Your task to perform on an android device: open chrome and create a bookmark for the current page Image 0: 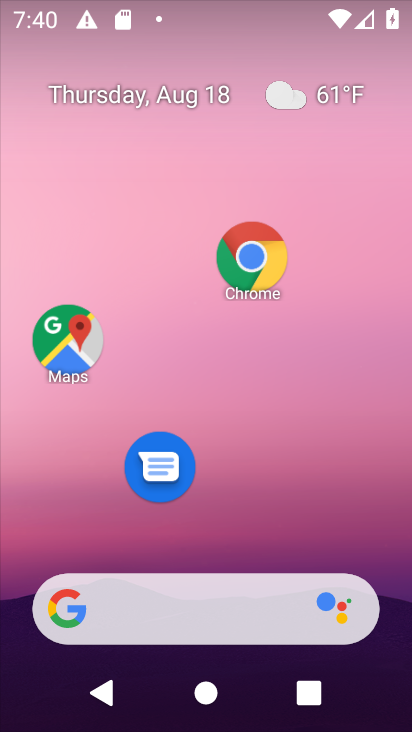
Step 0: task complete